Your task to perform on an android device: Go to Google maps Image 0: 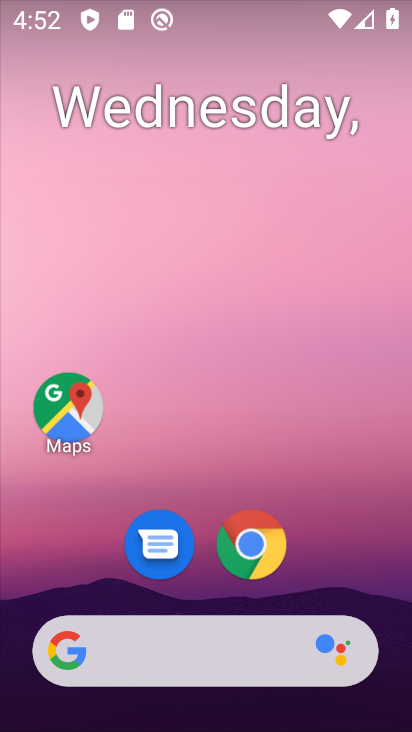
Step 0: click (50, 412)
Your task to perform on an android device: Go to Google maps Image 1: 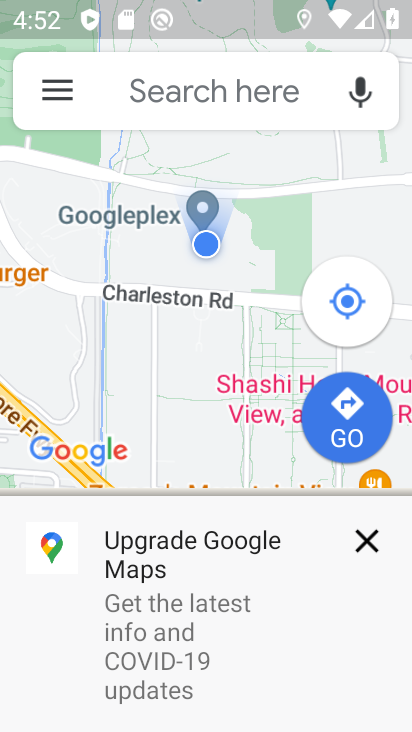
Step 1: task complete